Your task to perform on an android device: open app "PUBG MOBILE" Image 0: 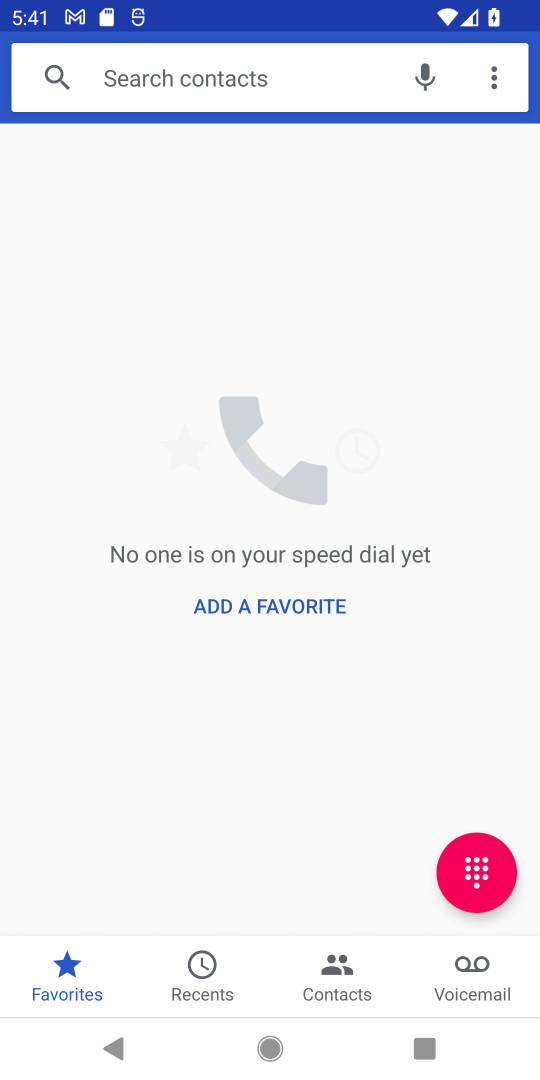
Step 0: press back button
Your task to perform on an android device: open app "PUBG MOBILE" Image 1: 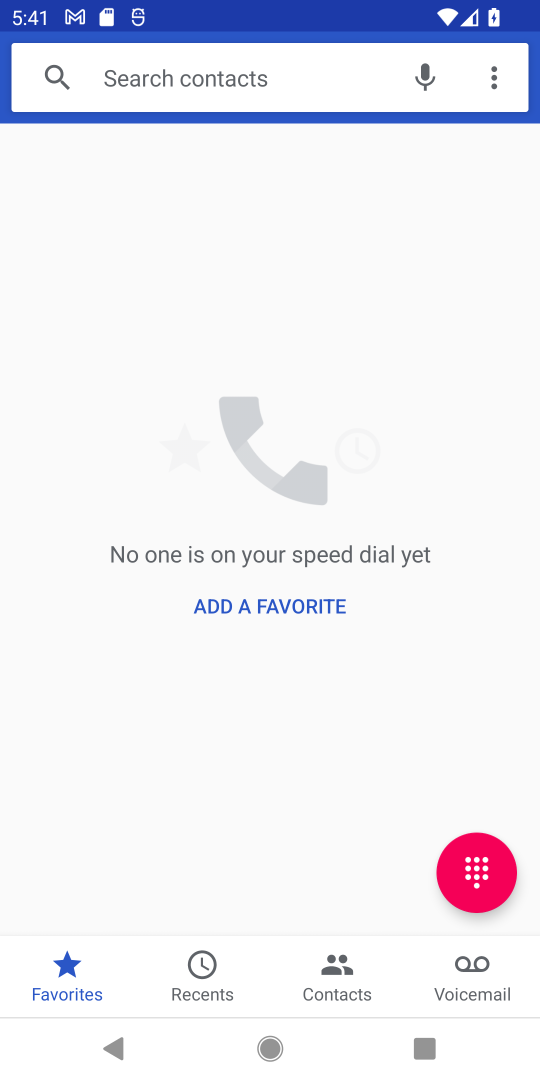
Step 1: press back button
Your task to perform on an android device: open app "PUBG MOBILE" Image 2: 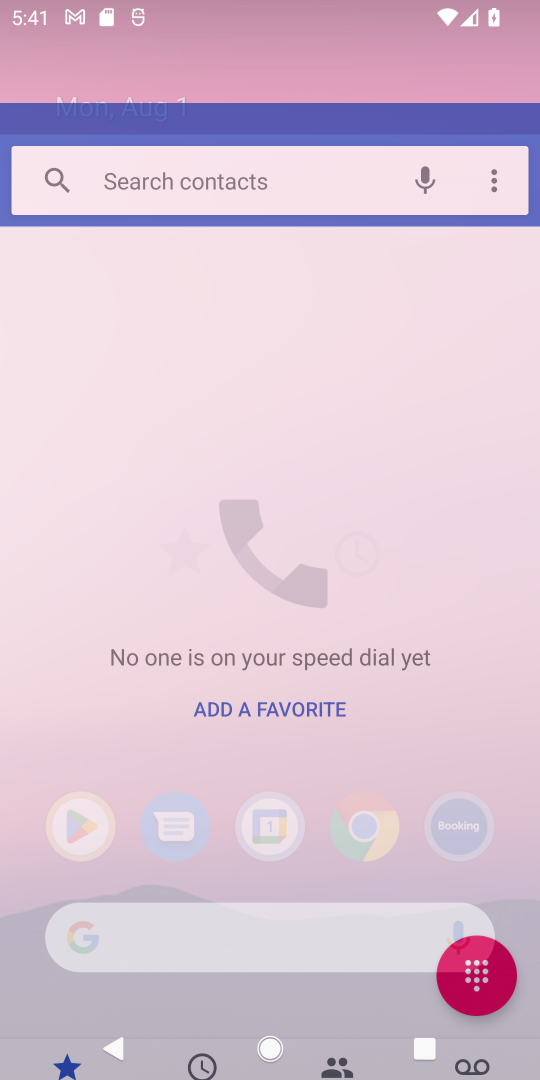
Step 2: press back button
Your task to perform on an android device: open app "PUBG MOBILE" Image 3: 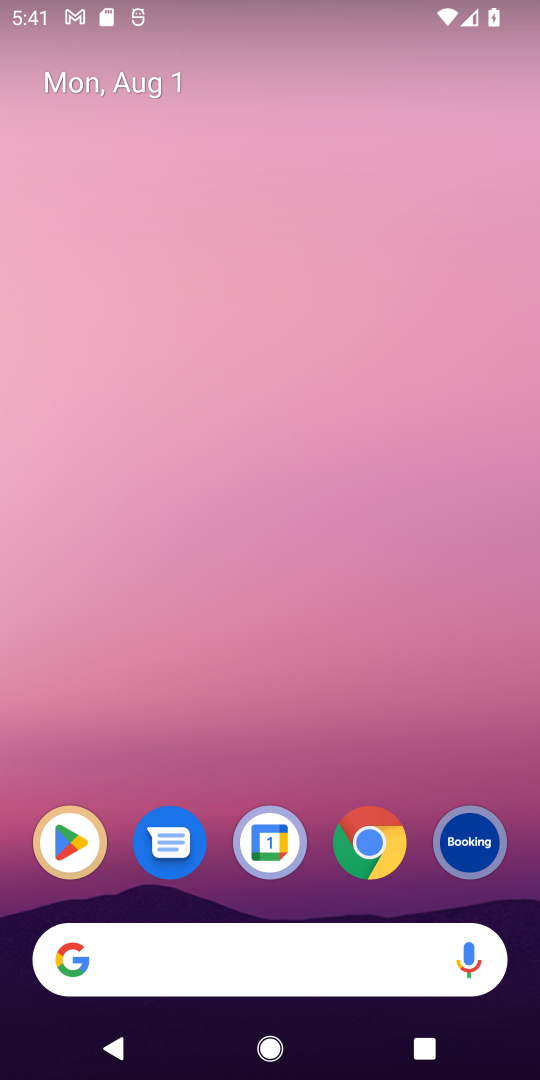
Step 3: drag from (330, 615) to (247, 77)
Your task to perform on an android device: open app "PUBG MOBILE" Image 4: 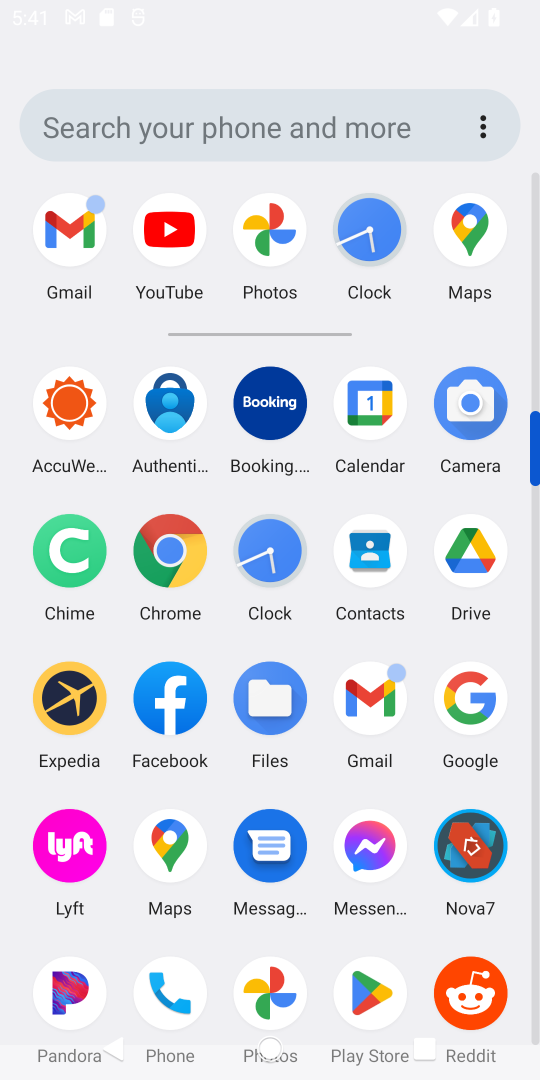
Step 4: drag from (352, 637) to (307, 212)
Your task to perform on an android device: open app "PUBG MOBILE" Image 5: 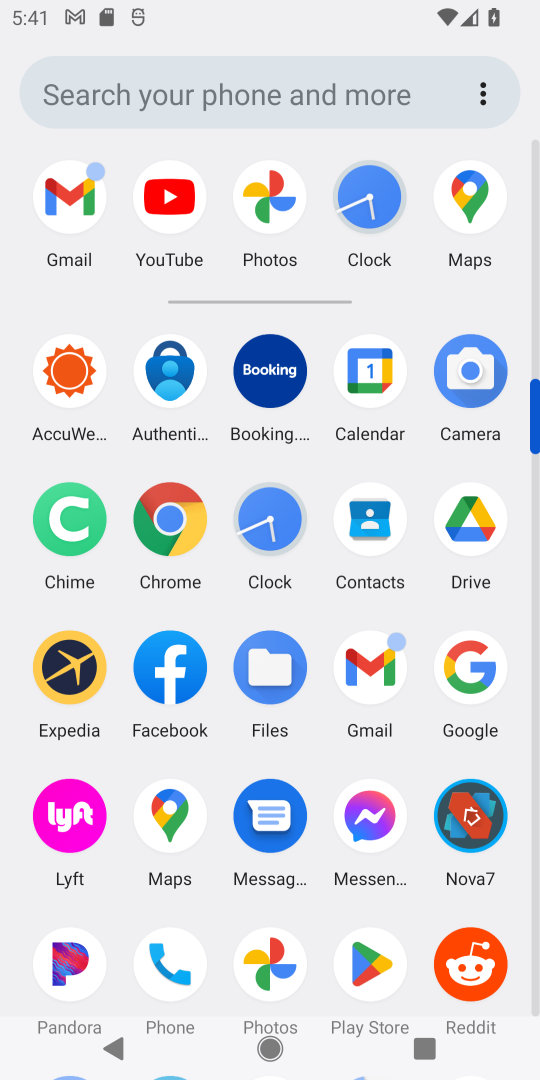
Step 5: drag from (304, 832) to (224, 148)
Your task to perform on an android device: open app "PUBG MOBILE" Image 6: 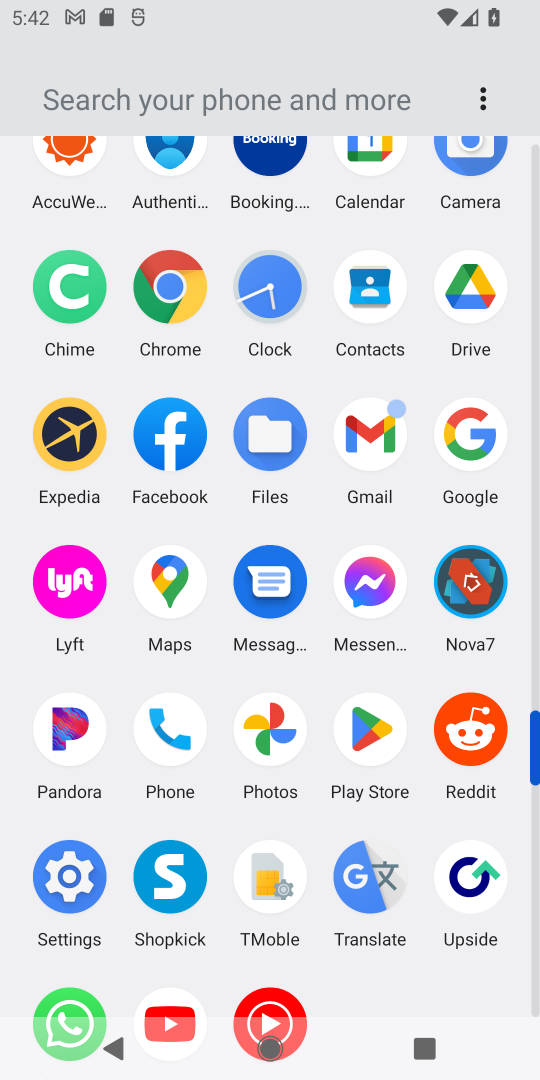
Step 6: click (366, 739)
Your task to perform on an android device: open app "PUBG MOBILE" Image 7: 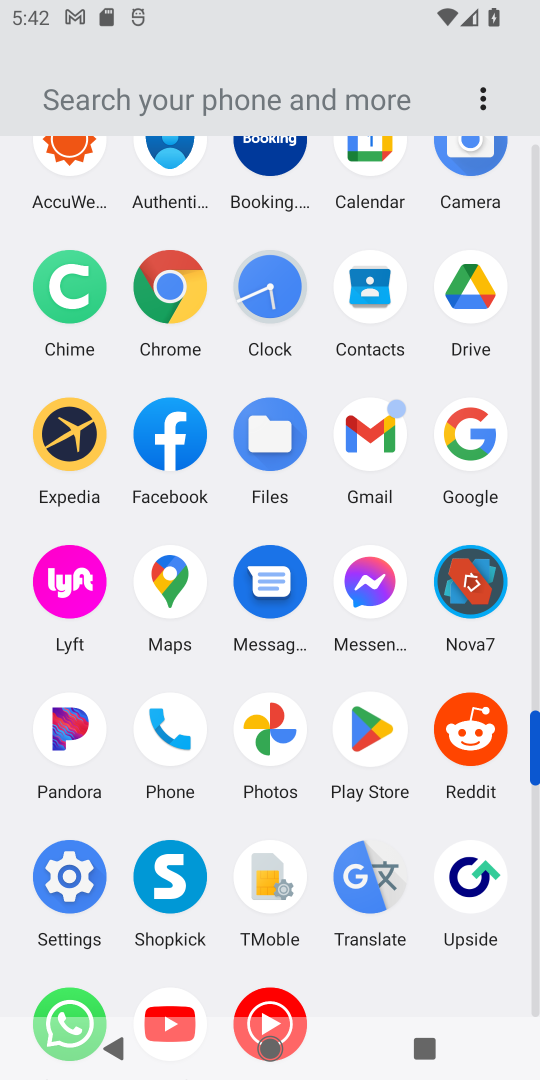
Step 7: click (368, 737)
Your task to perform on an android device: open app "PUBG MOBILE" Image 8: 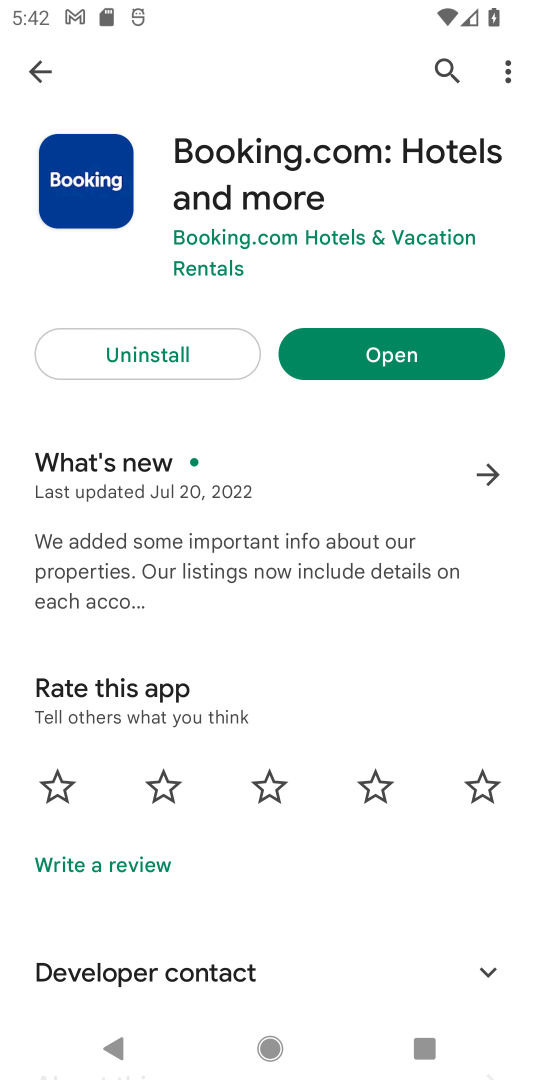
Step 8: click (32, 56)
Your task to perform on an android device: open app "PUBG MOBILE" Image 9: 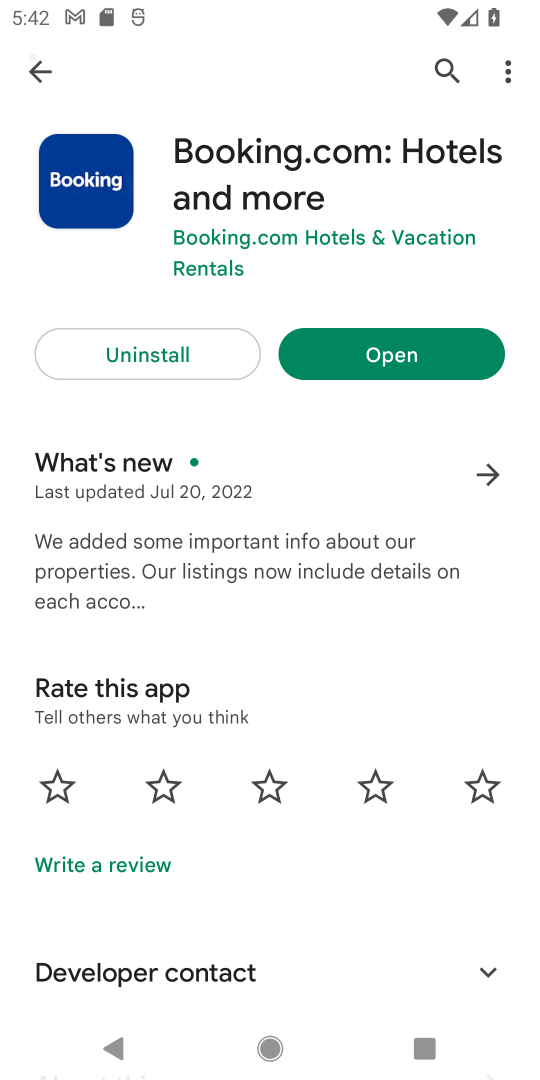
Step 9: click (33, 57)
Your task to perform on an android device: open app "PUBG MOBILE" Image 10: 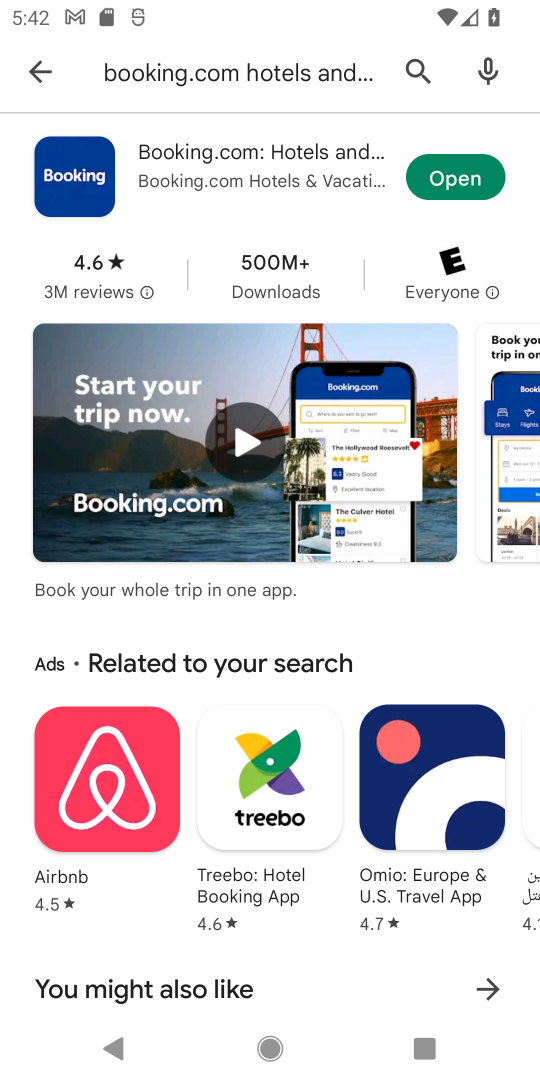
Step 10: click (40, 64)
Your task to perform on an android device: open app "PUBG MOBILE" Image 11: 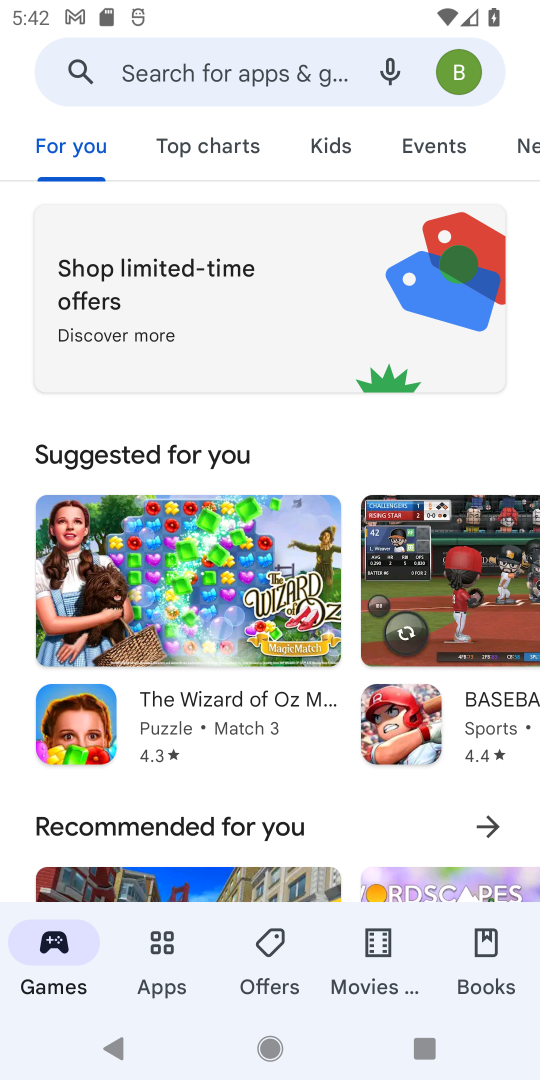
Step 11: click (151, 62)
Your task to perform on an android device: open app "PUBG MOBILE" Image 12: 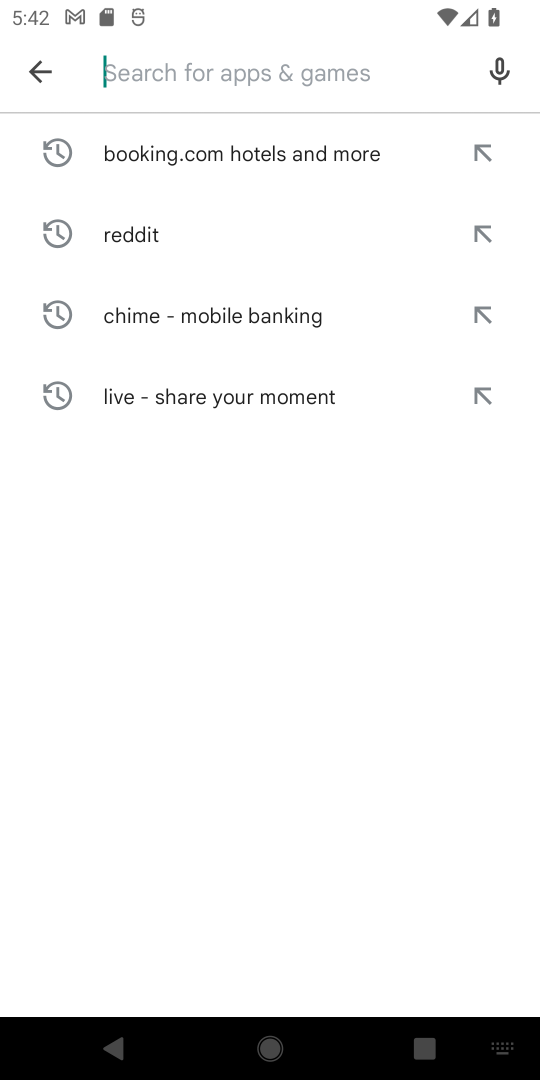
Step 12: type "PUBG MOBILE"
Your task to perform on an android device: open app "PUBG MOBILE" Image 13: 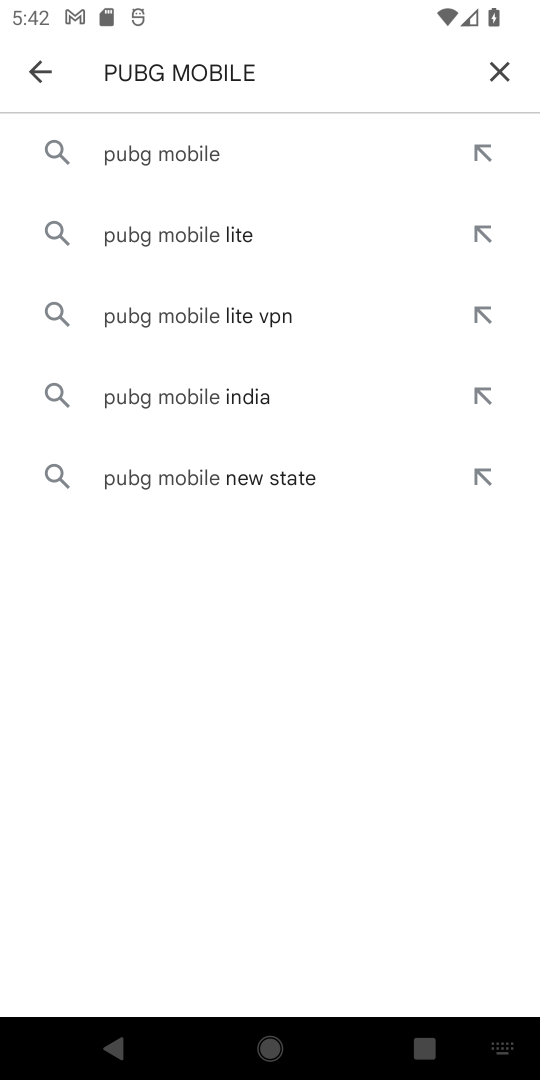
Step 13: click (189, 153)
Your task to perform on an android device: open app "PUBG MOBILE" Image 14: 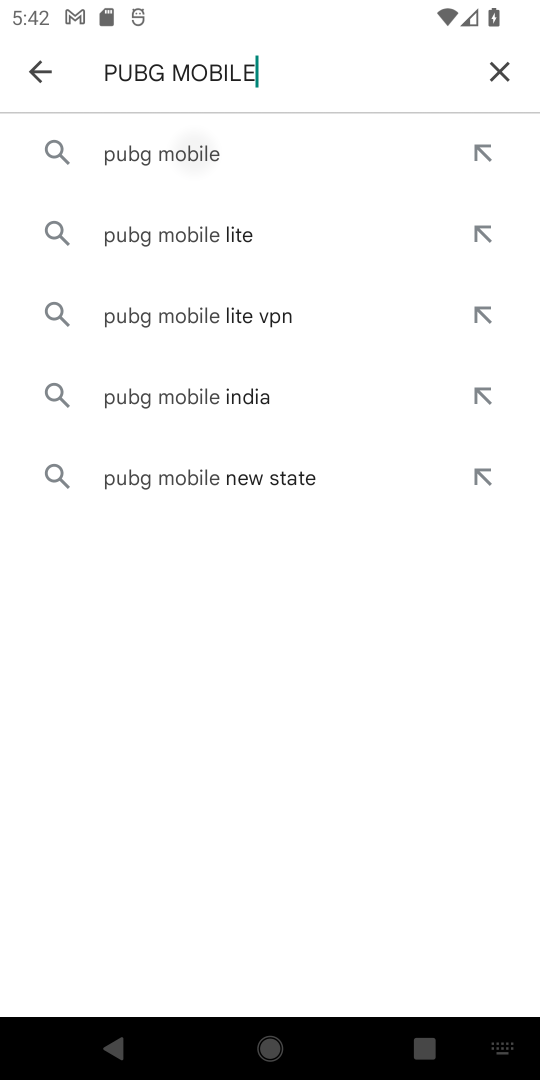
Step 14: click (184, 152)
Your task to perform on an android device: open app "PUBG MOBILE" Image 15: 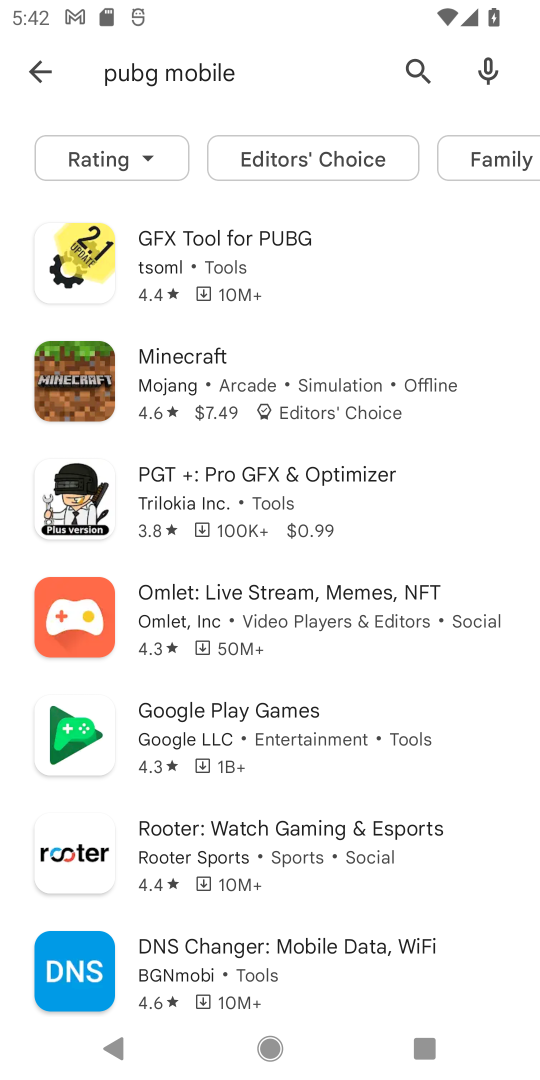
Step 15: drag from (232, 782) to (150, 328)
Your task to perform on an android device: open app "PUBG MOBILE" Image 16: 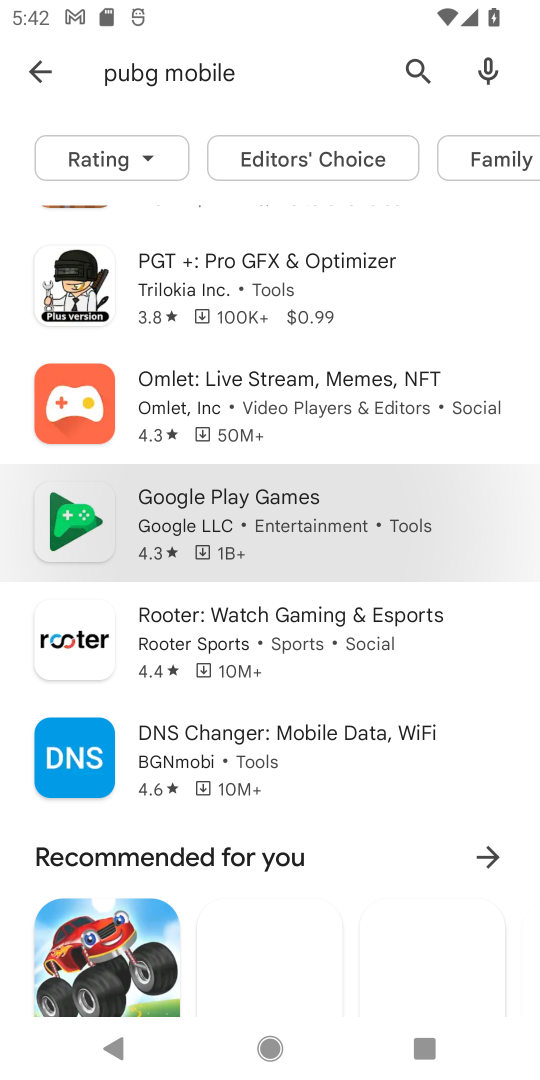
Step 16: drag from (216, 757) to (293, 387)
Your task to perform on an android device: open app "PUBG MOBILE" Image 17: 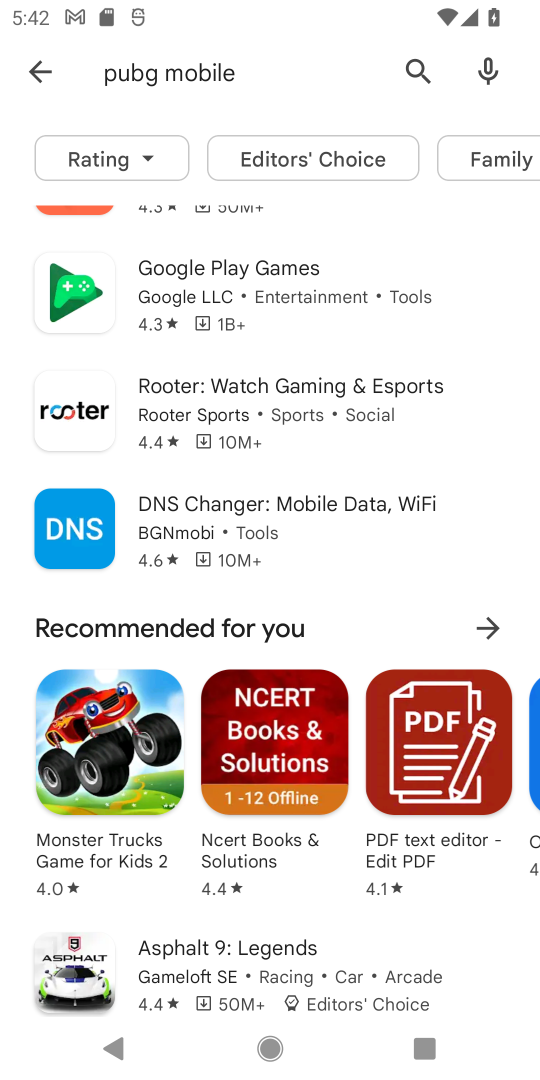
Step 17: drag from (338, 759) to (339, 335)
Your task to perform on an android device: open app "PUBG MOBILE" Image 18: 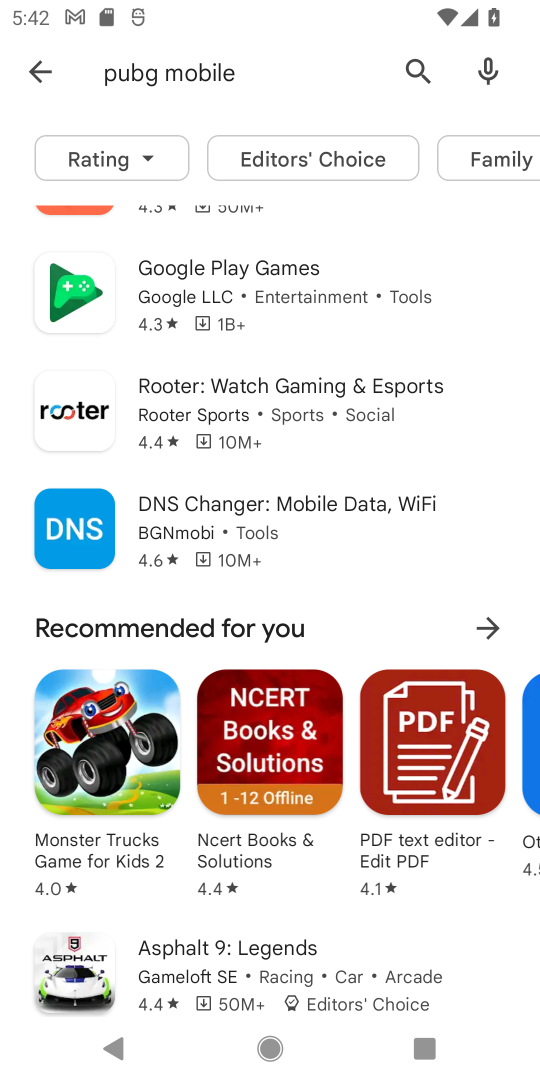
Step 18: drag from (313, 663) to (271, 169)
Your task to perform on an android device: open app "PUBG MOBILE" Image 19: 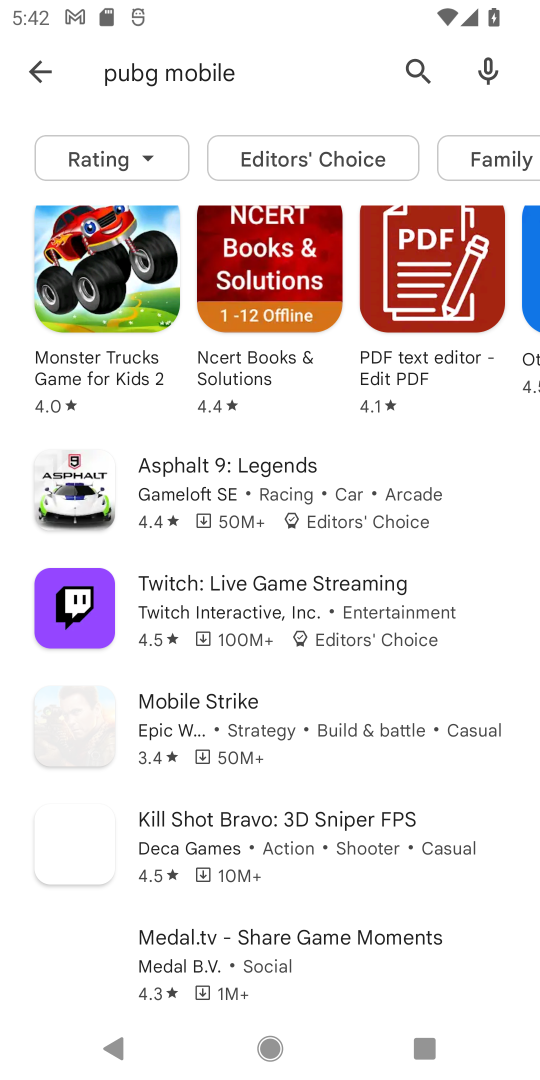
Step 19: drag from (246, 466) to (246, 329)
Your task to perform on an android device: open app "PUBG MOBILE" Image 20: 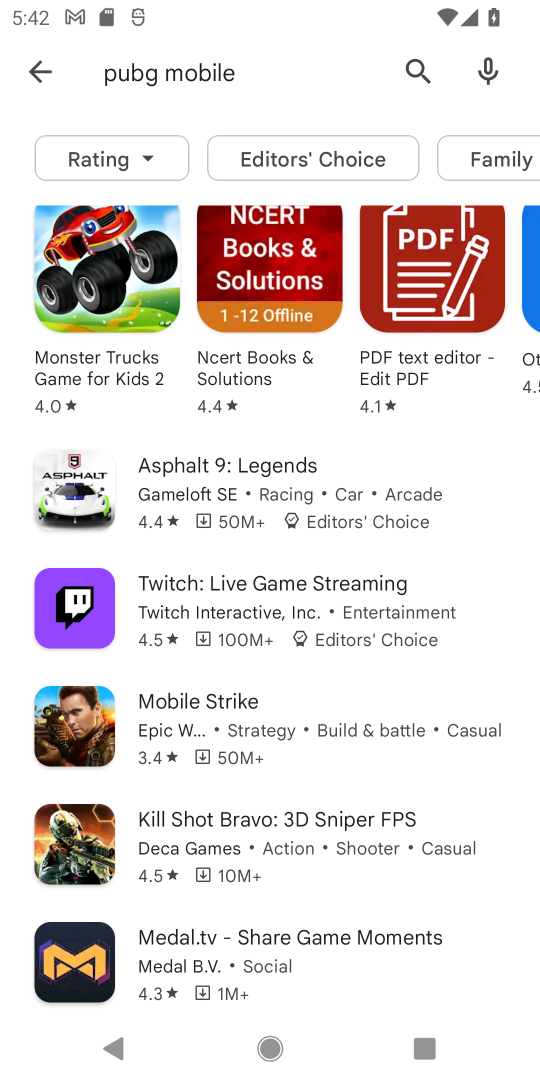
Step 20: click (261, 282)
Your task to perform on an android device: open app "PUBG MOBILE" Image 21: 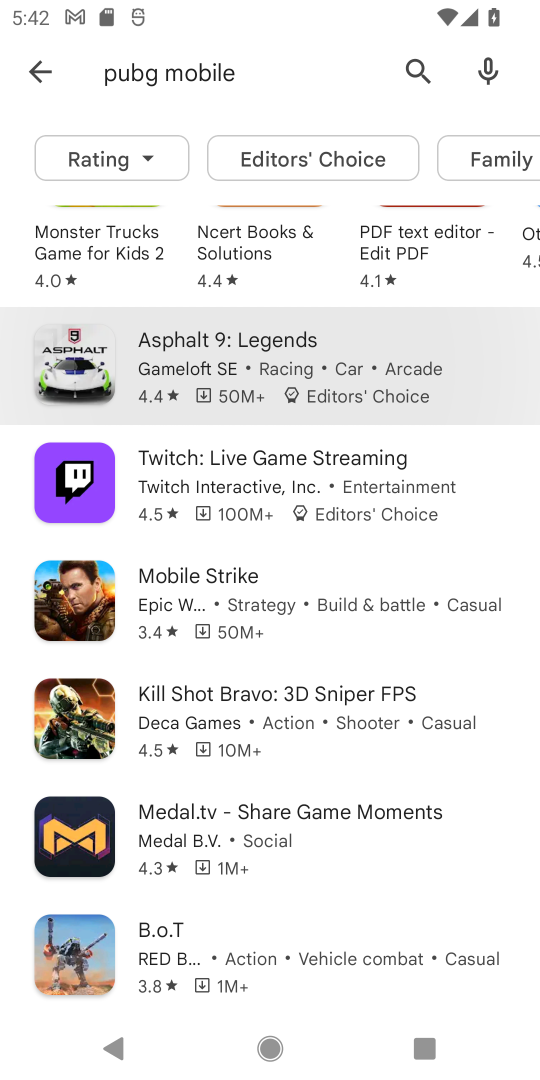
Step 21: drag from (261, 870) to (261, 394)
Your task to perform on an android device: open app "PUBG MOBILE" Image 22: 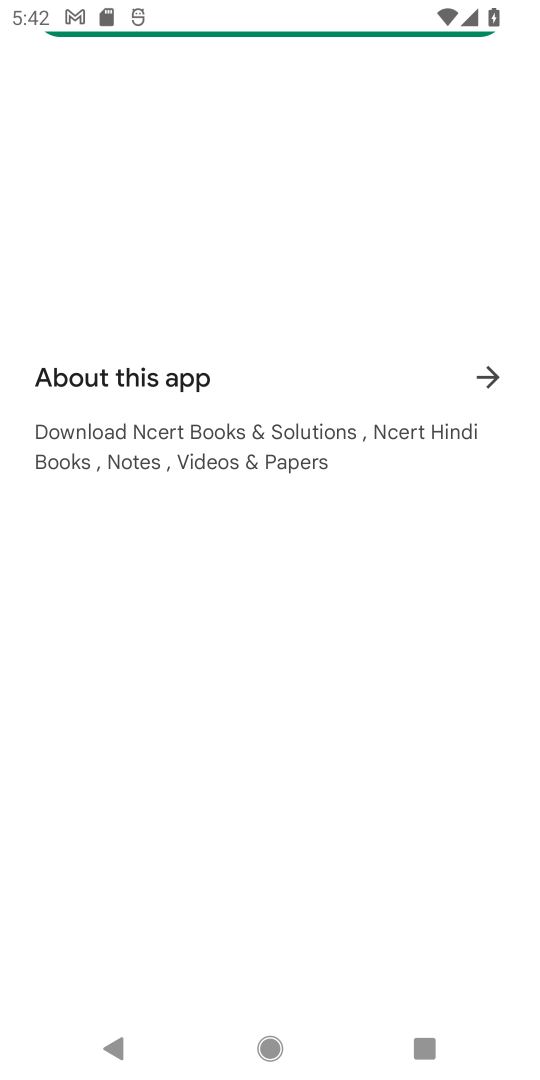
Step 22: drag from (250, 750) to (279, 347)
Your task to perform on an android device: open app "PUBG MOBILE" Image 23: 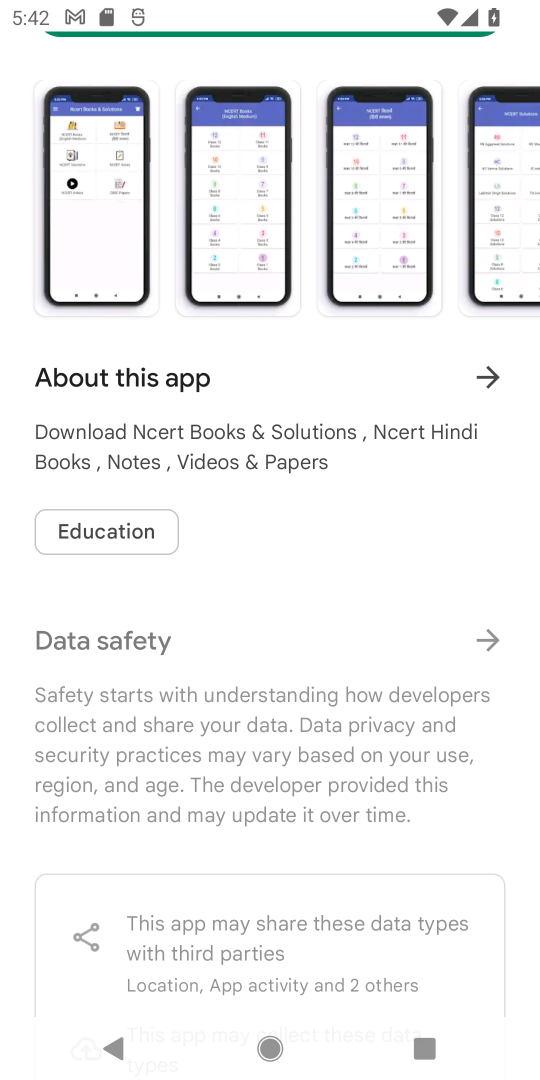
Step 23: drag from (268, 648) to (268, 363)
Your task to perform on an android device: open app "PUBG MOBILE" Image 24: 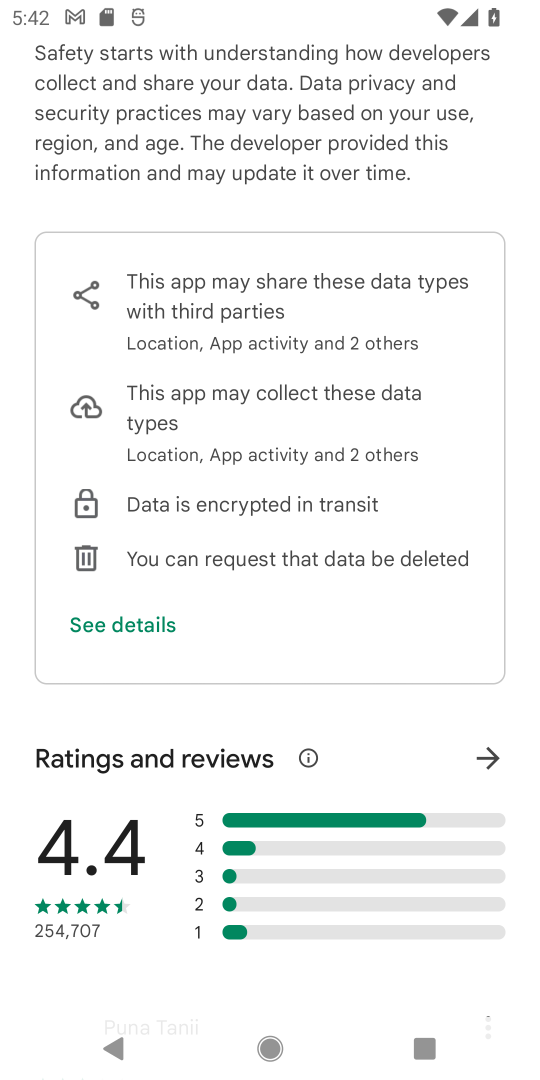
Step 24: drag from (297, 557) to (297, 199)
Your task to perform on an android device: open app "PUBG MOBILE" Image 25: 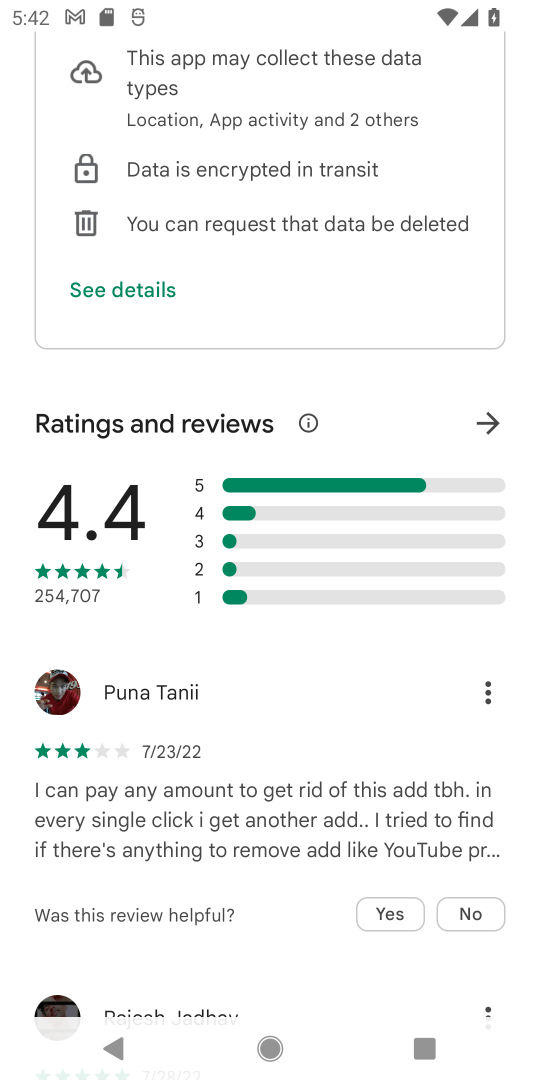
Step 25: drag from (300, 782) to (321, 951)
Your task to perform on an android device: open app "PUBG MOBILE" Image 26: 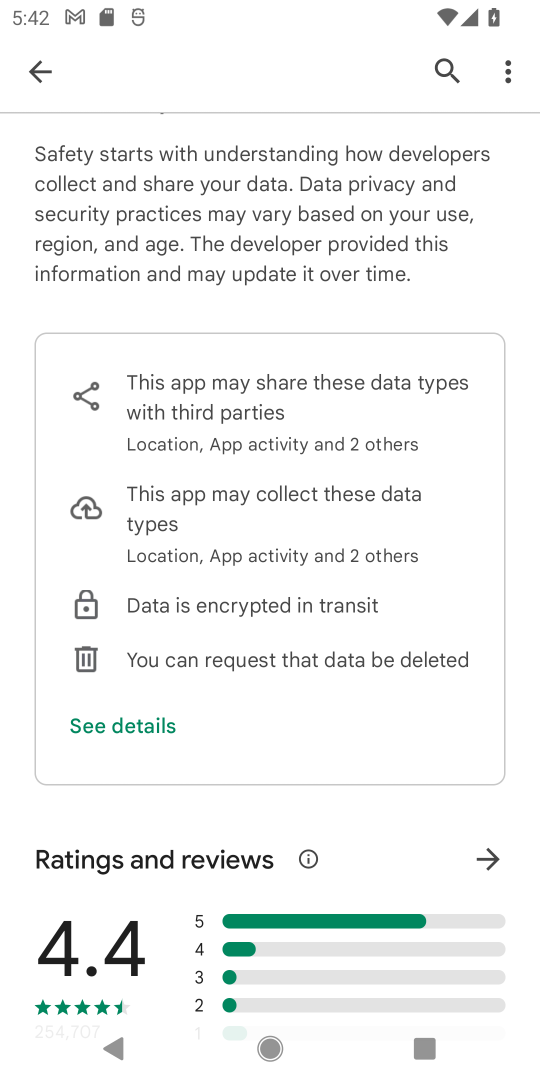
Step 26: drag from (169, 425) to (185, 863)
Your task to perform on an android device: open app "PUBG MOBILE" Image 27: 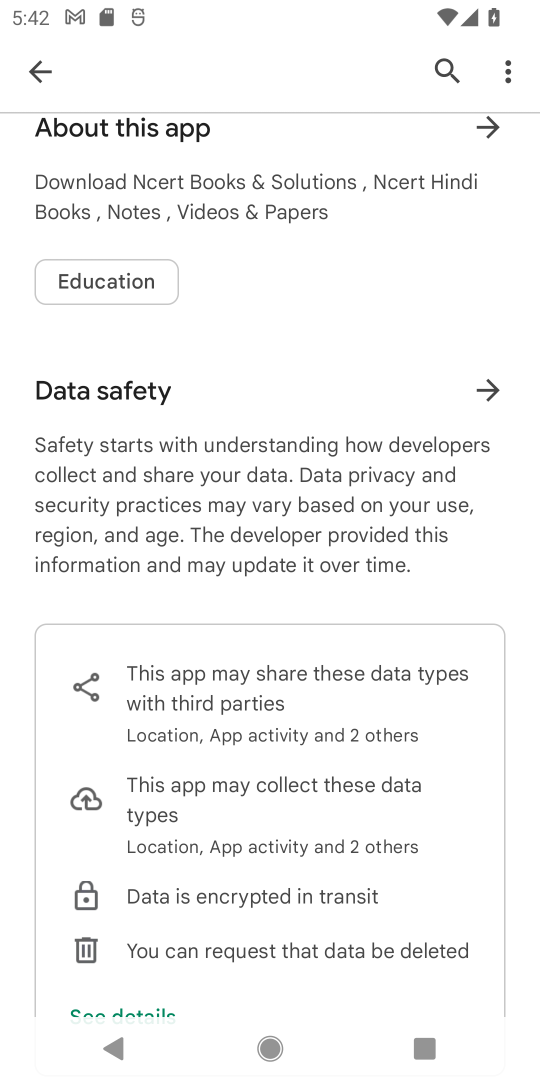
Step 27: drag from (153, 399) to (214, 980)
Your task to perform on an android device: open app "PUBG MOBILE" Image 28: 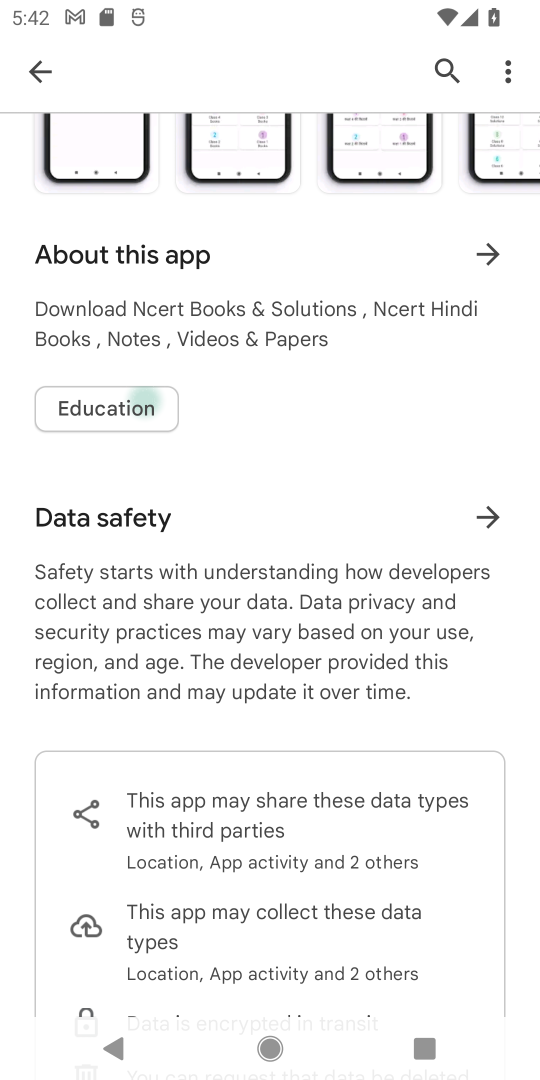
Step 28: drag from (113, 405) to (167, 866)
Your task to perform on an android device: open app "PUBG MOBILE" Image 29: 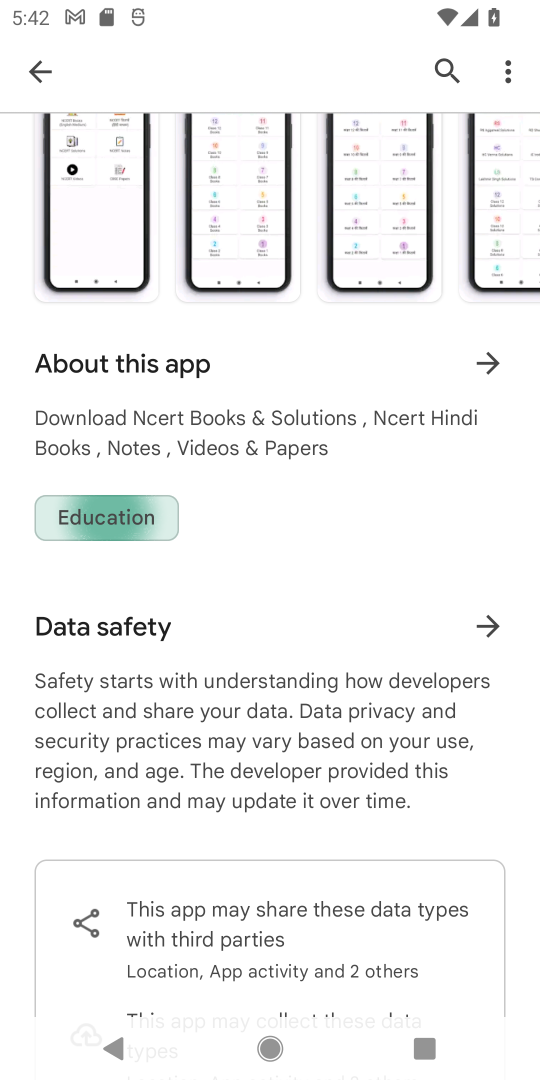
Step 29: drag from (119, 590) to (250, 936)
Your task to perform on an android device: open app "PUBG MOBILE" Image 30: 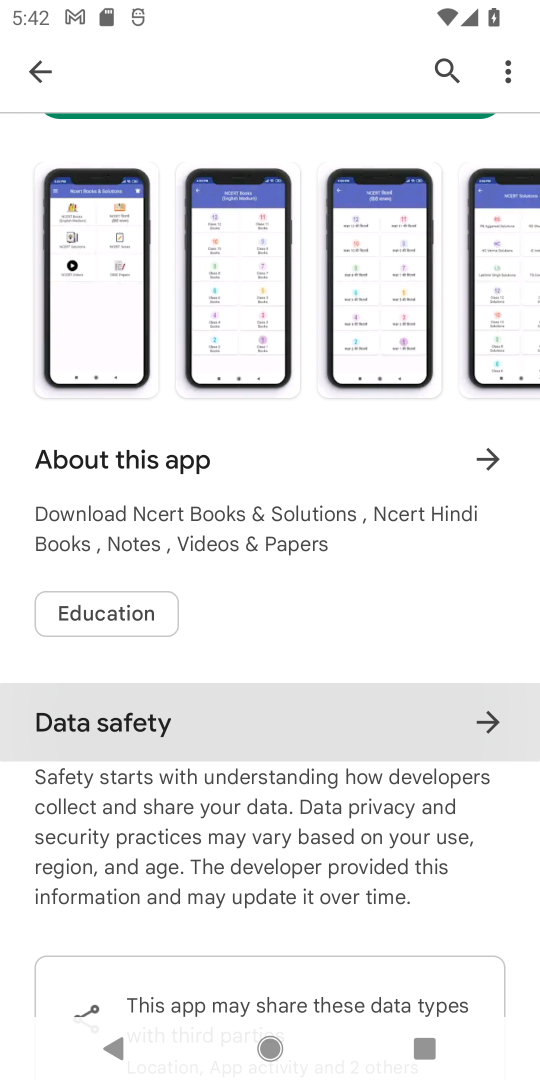
Step 30: click (389, 763)
Your task to perform on an android device: open app "PUBG MOBILE" Image 31: 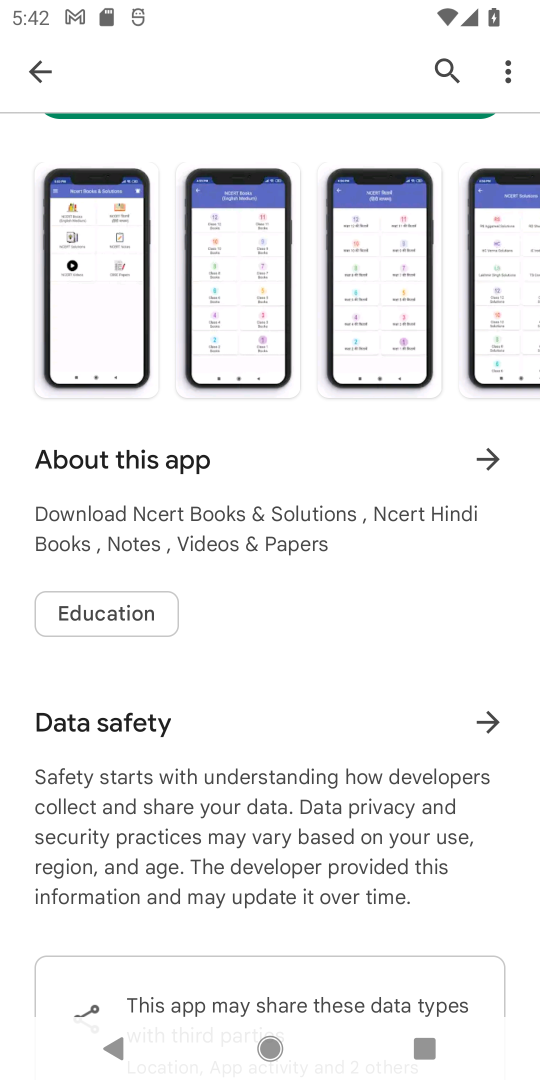
Step 31: task complete